Your task to perform on an android device: Go to notification settings Image 0: 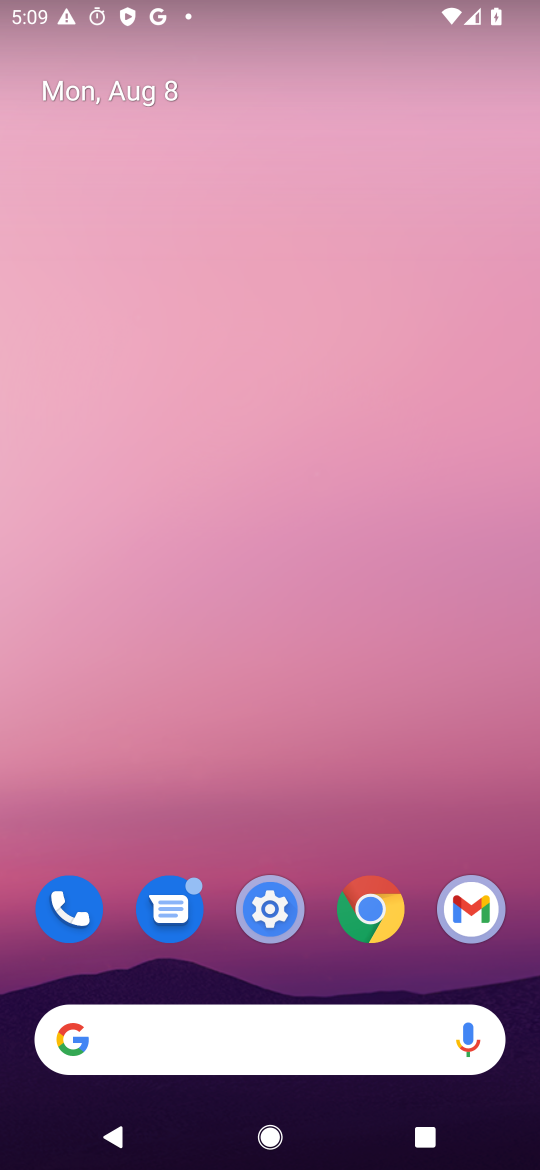
Step 0: click (266, 900)
Your task to perform on an android device: Go to notification settings Image 1: 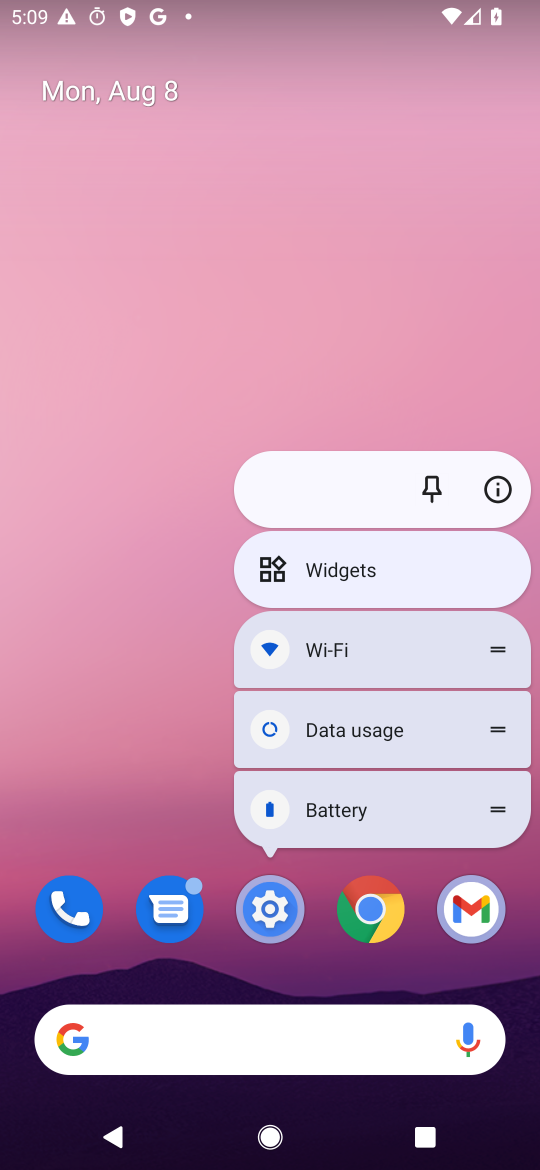
Step 1: click (266, 903)
Your task to perform on an android device: Go to notification settings Image 2: 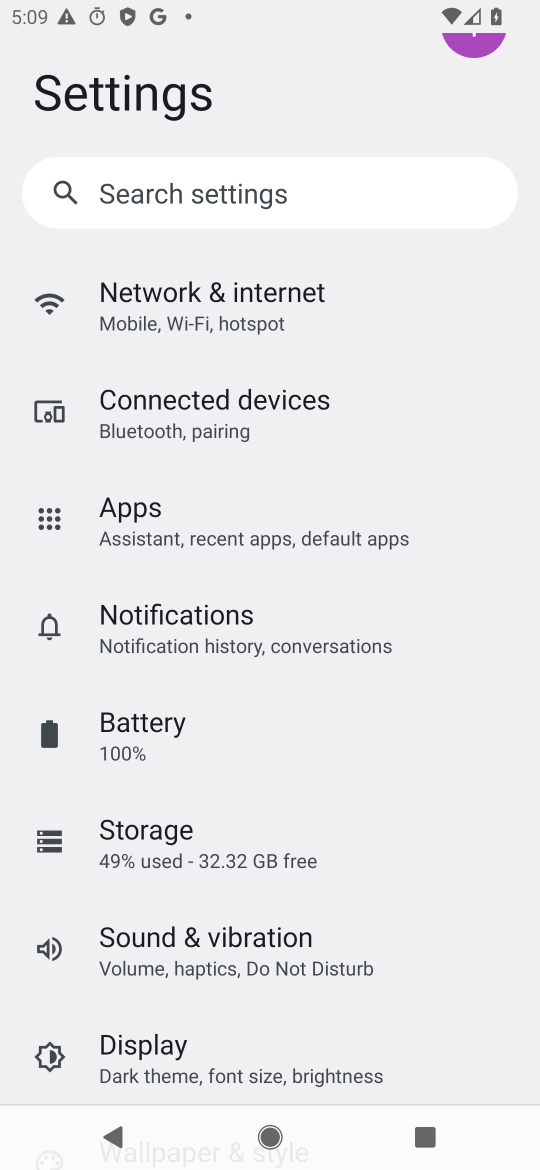
Step 2: click (197, 651)
Your task to perform on an android device: Go to notification settings Image 3: 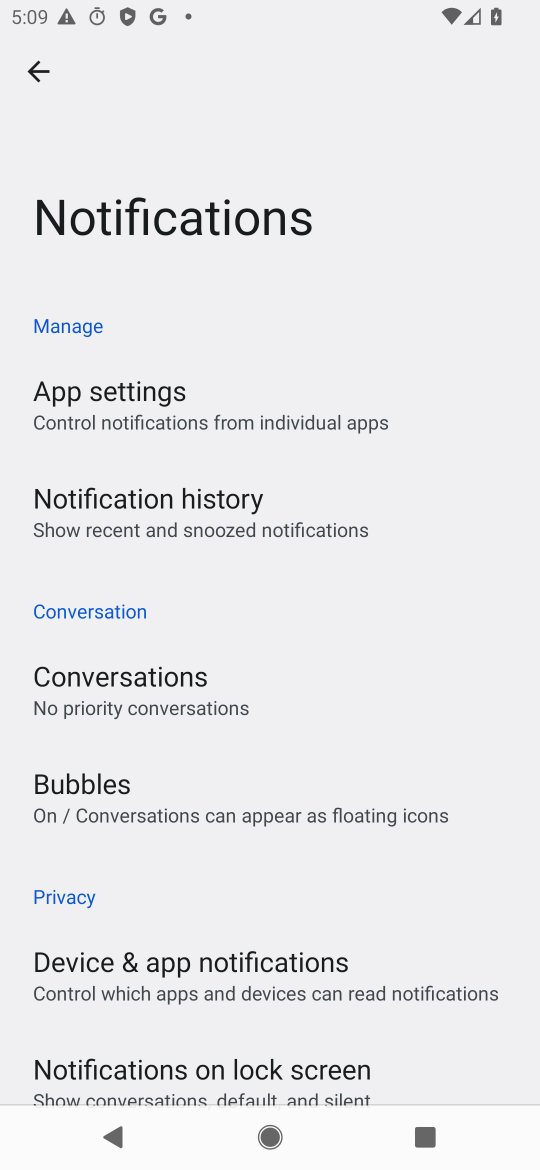
Step 3: task complete